Your task to perform on an android device: Turn off the flashlight Image 0: 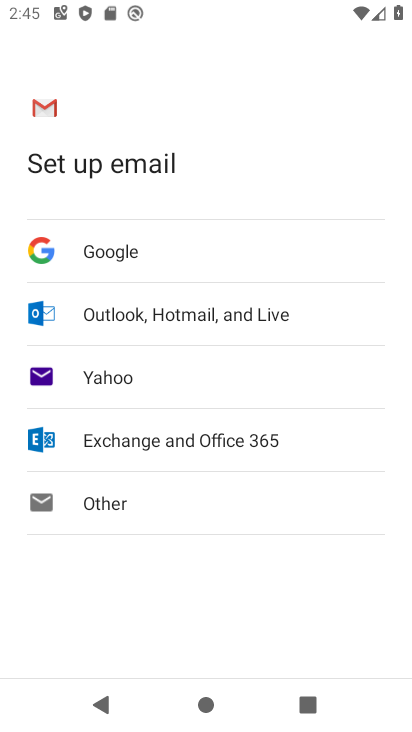
Step 0: press home button
Your task to perform on an android device: Turn off the flashlight Image 1: 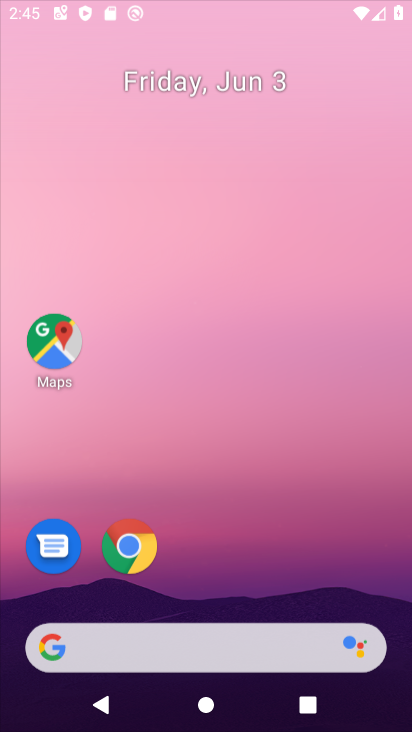
Step 1: press home button
Your task to perform on an android device: Turn off the flashlight Image 2: 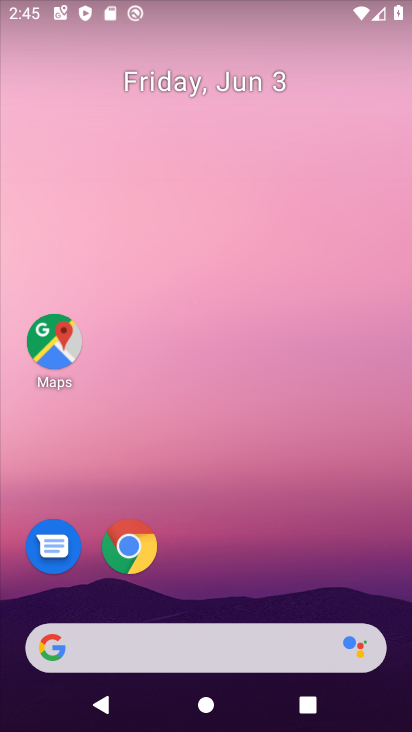
Step 2: drag from (231, 548) to (238, 13)
Your task to perform on an android device: Turn off the flashlight Image 3: 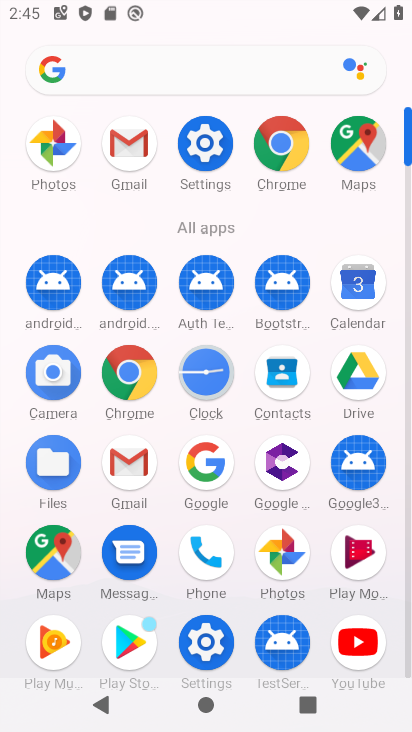
Step 3: click (203, 626)
Your task to perform on an android device: Turn off the flashlight Image 4: 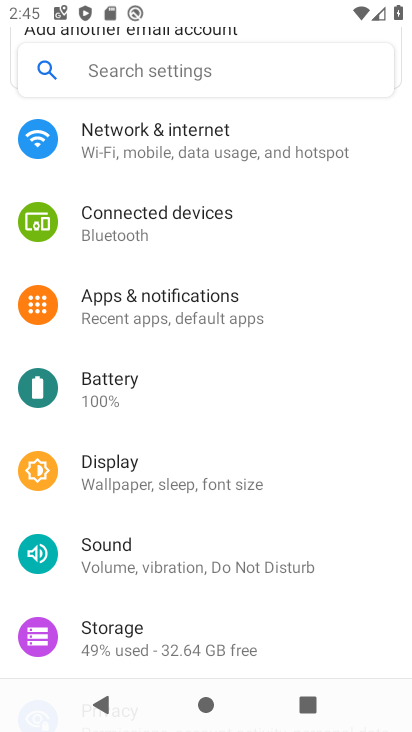
Step 4: task complete